Your task to perform on an android device: What's the weather? Image 0: 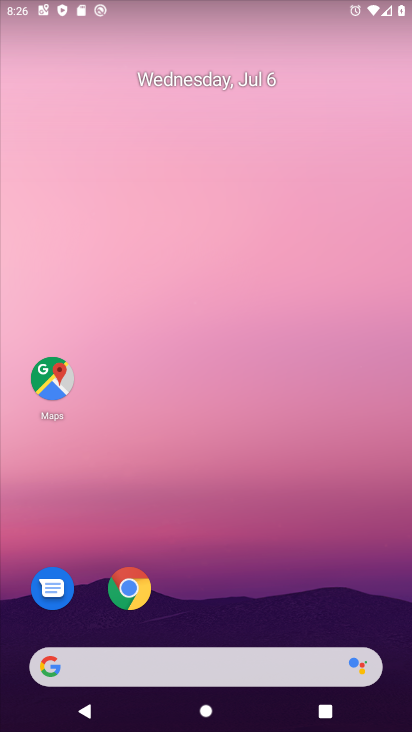
Step 0: drag from (302, 595) to (324, 116)
Your task to perform on an android device: What's the weather? Image 1: 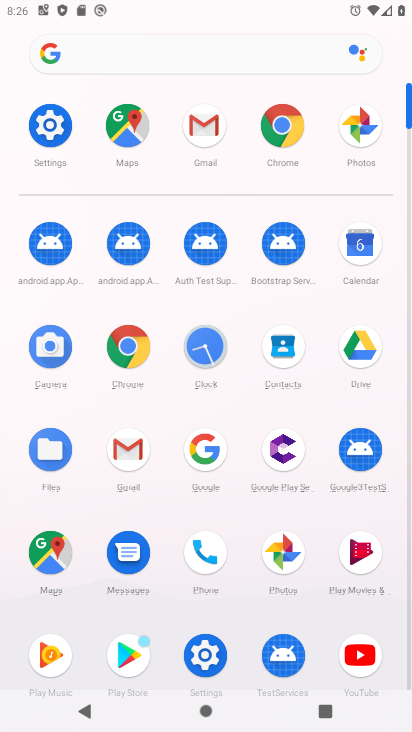
Step 1: click (139, 347)
Your task to perform on an android device: What's the weather? Image 2: 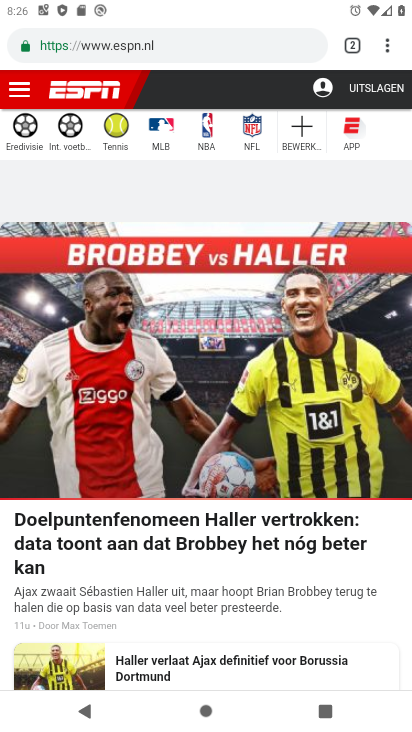
Step 2: click (380, 41)
Your task to perform on an android device: What's the weather? Image 3: 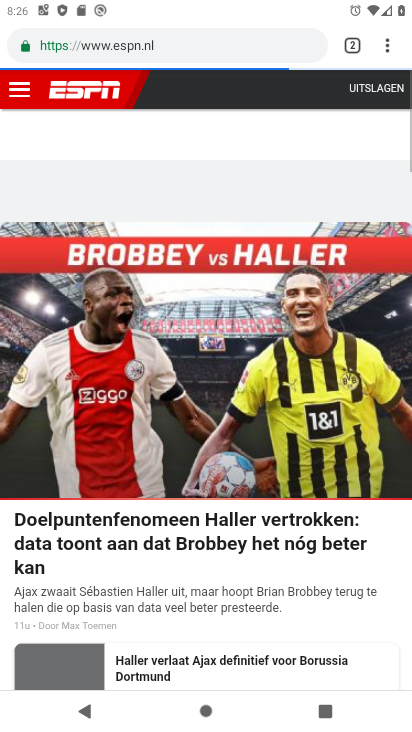
Step 3: click (386, 44)
Your task to perform on an android device: What's the weather? Image 4: 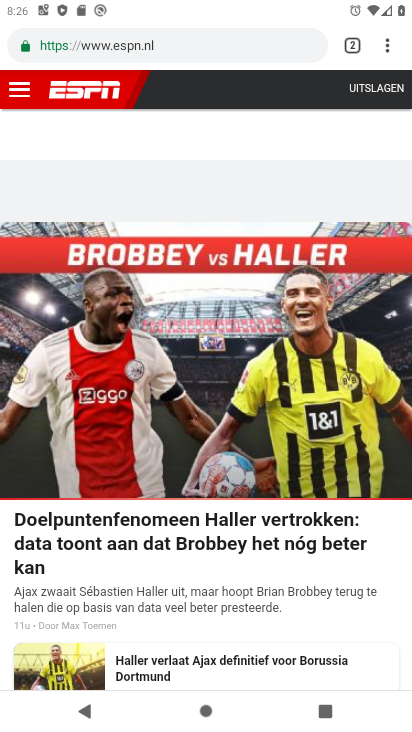
Step 4: click (380, 42)
Your task to perform on an android device: What's the weather? Image 5: 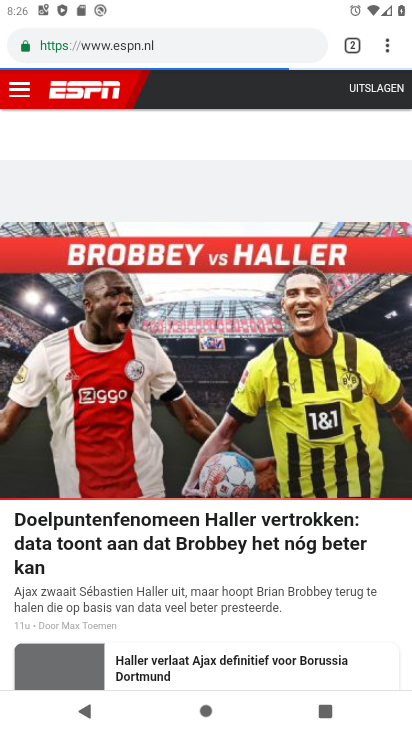
Step 5: click (381, 46)
Your task to perform on an android device: What's the weather? Image 6: 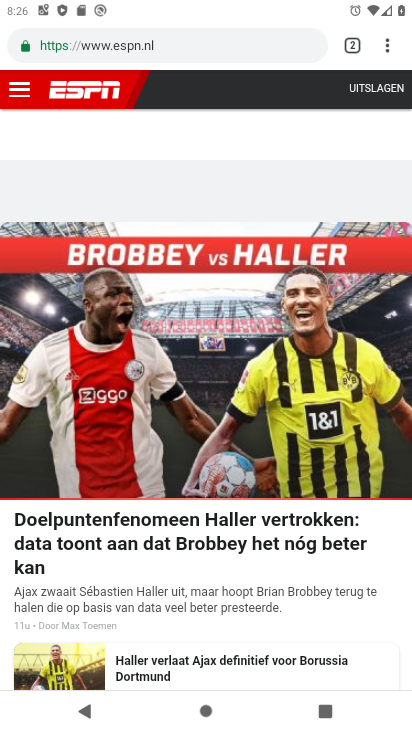
Step 6: click (385, 42)
Your task to perform on an android device: What's the weather? Image 7: 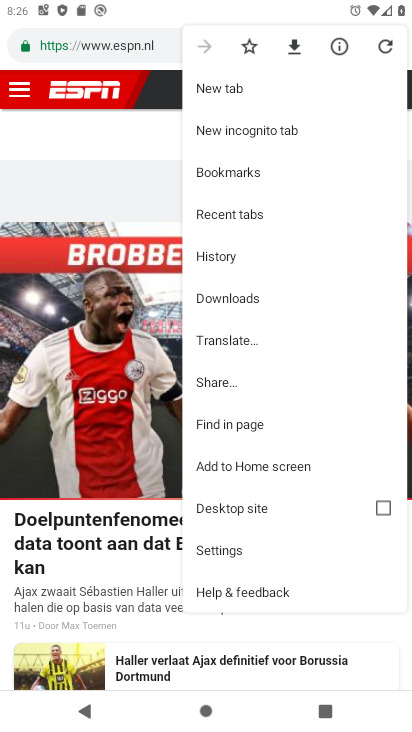
Step 7: click (209, 78)
Your task to perform on an android device: What's the weather? Image 8: 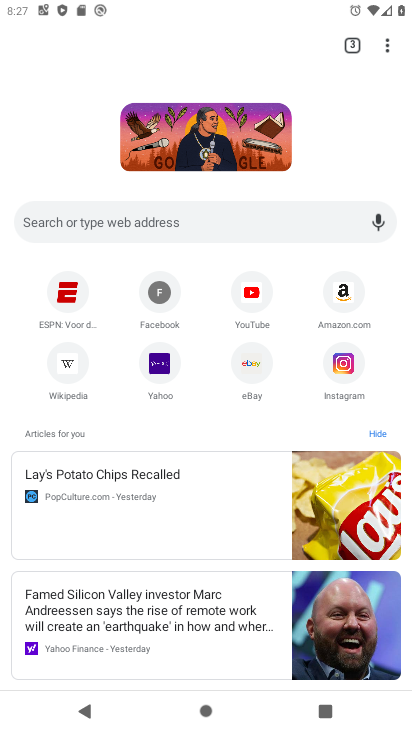
Step 8: click (138, 214)
Your task to perform on an android device: What's the weather? Image 9: 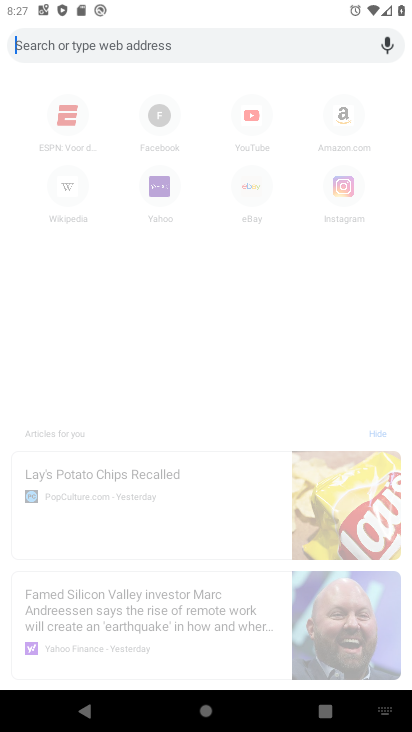
Step 9: type "What's the weather "
Your task to perform on an android device: What's the weather? Image 10: 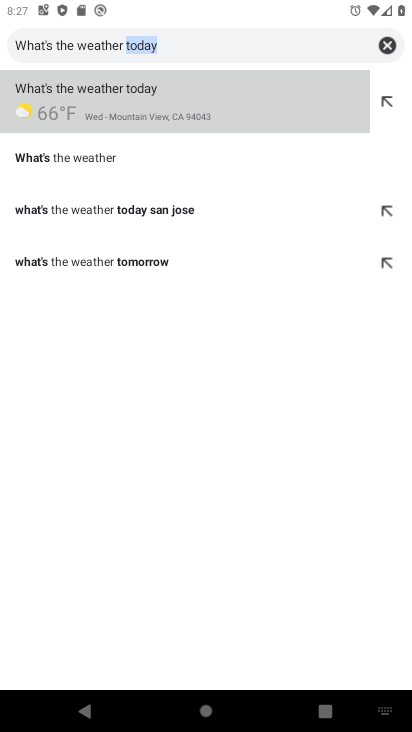
Step 10: click (237, 109)
Your task to perform on an android device: What's the weather? Image 11: 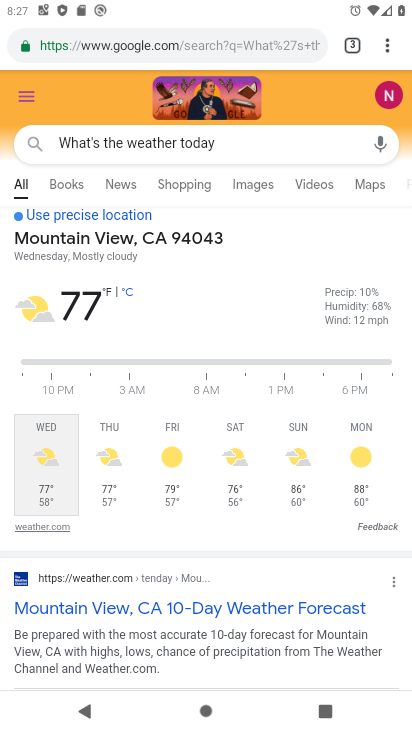
Step 11: task complete